Your task to perform on an android device: open a bookmark in the chrome app Image 0: 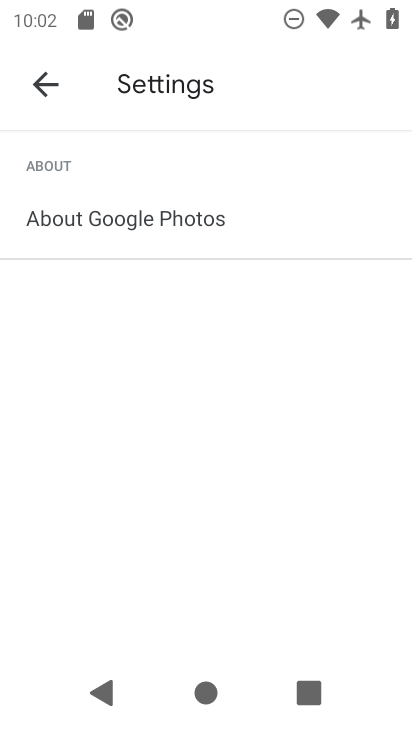
Step 0: press home button
Your task to perform on an android device: open a bookmark in the chrome app Image 1: 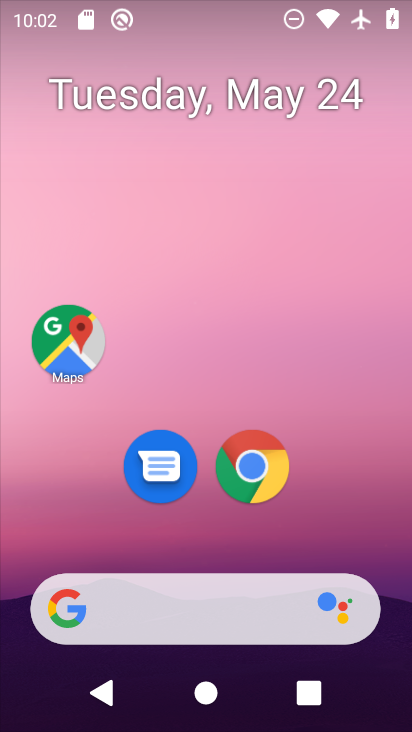
Step 1: click (246, 482)
Your task to perform on an android device: open a bookmark in the chrome app Image 2: 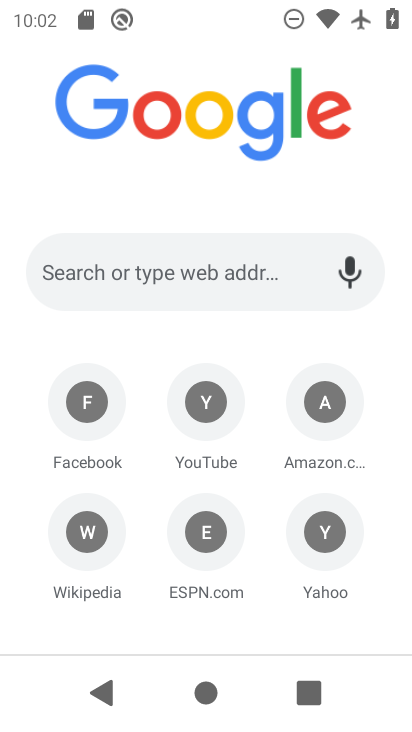
Step 2: drag from (236, 199) to (221, 392)
Your task to perform on an android device: open a bookmark in the chrome app Image 3: 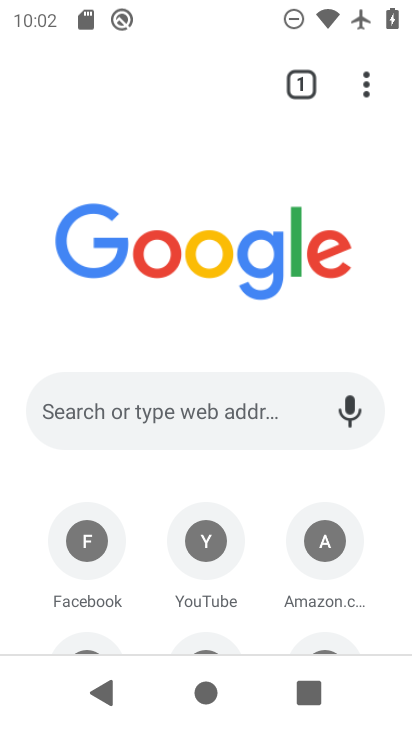
Step 3: click (367, 87)
Your task to perform on an android device: open a bookmark in the chrome app Image 4: 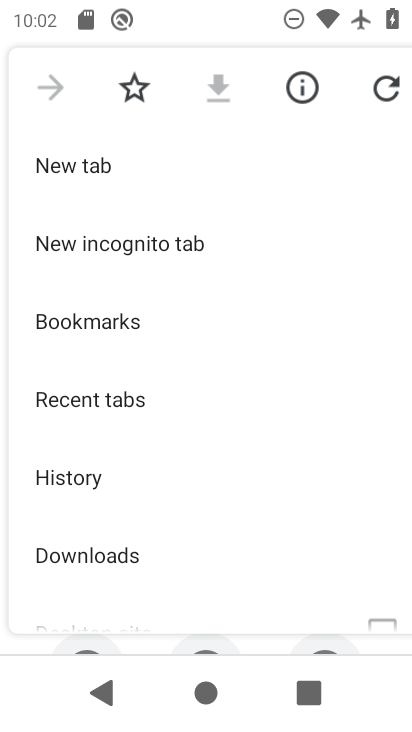
Step 4: click (107, 319)
Your task to perform on an android device: open a bookmark in the chrome app Image 5: 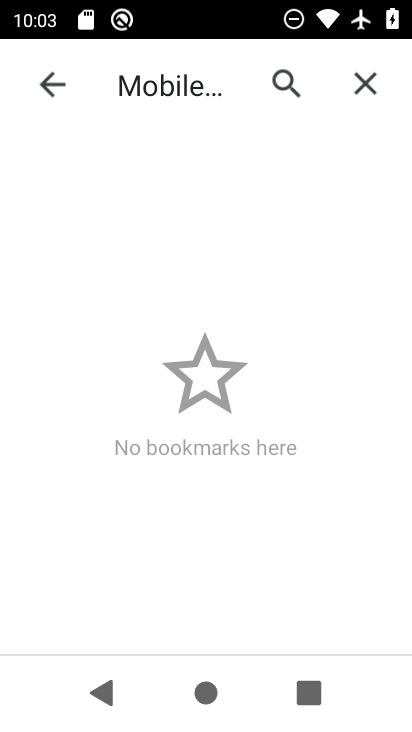
Step 5: click (50, 80)
Your task to perform on an android device: open a bookmark in the chrome app Image 6: 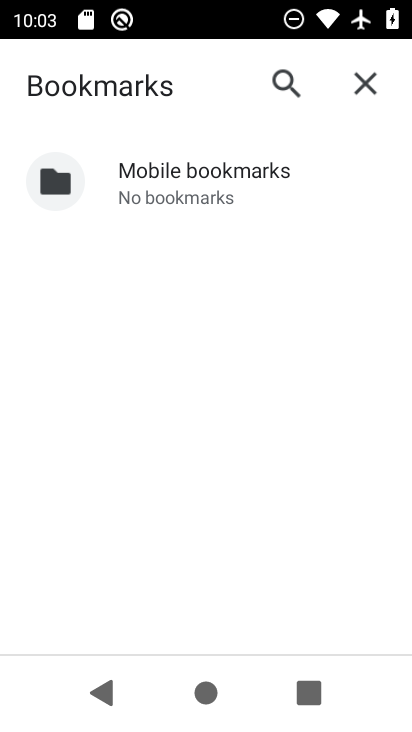
Step 6: press back button
Your task to perform on an android device: open a bookmark in the chrome app Image 7: 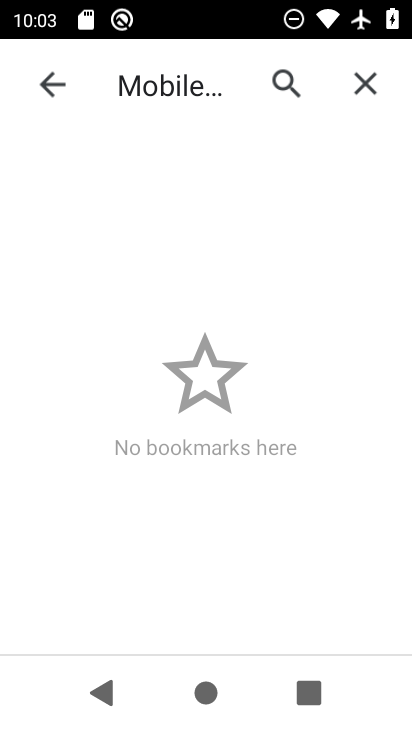
Step 7: click (40, 66)
Your task to perform on an android device: open a bookmark in the chrome app Image 8: 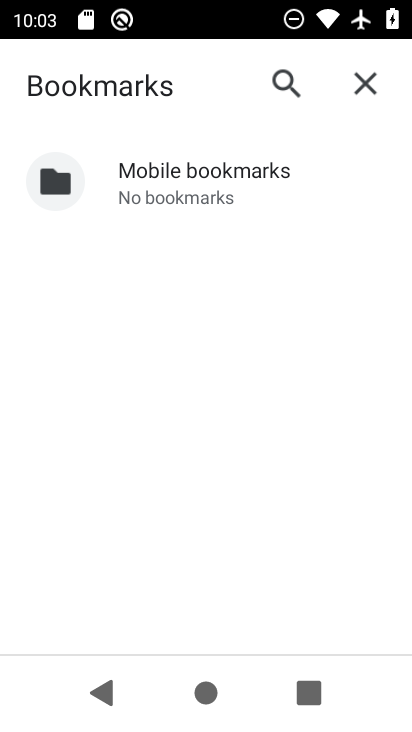
Step 8: task complete